Your task to perform on an android device: open app "Walmart Shopping & Grocery" (install if not already installed) and go to login screen Image 0: 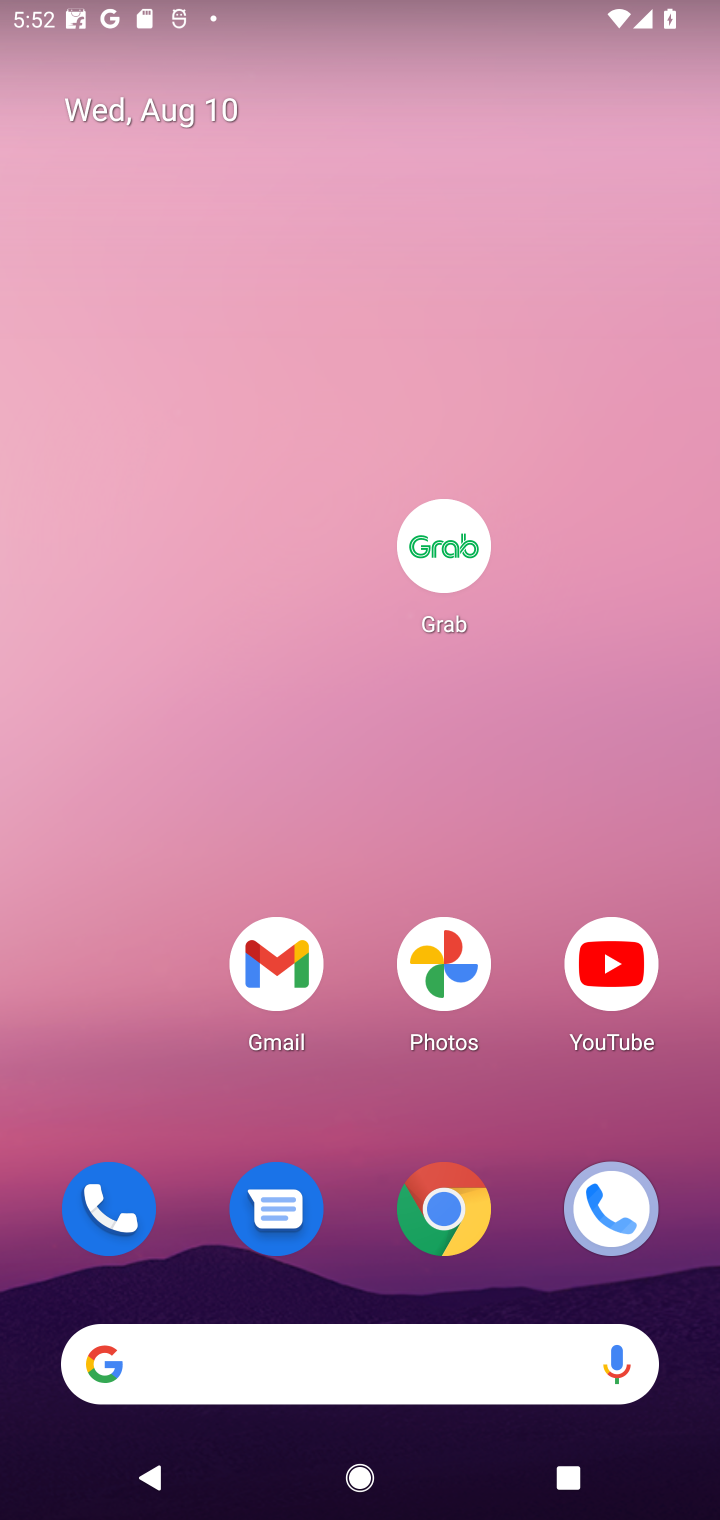
Step 0: drag from (522, 1246) to (480, 6)
Your task to perform on an android device: open app "Walmart Shopping & Grocery" (install if not already installed) and go to login screen Image 1: 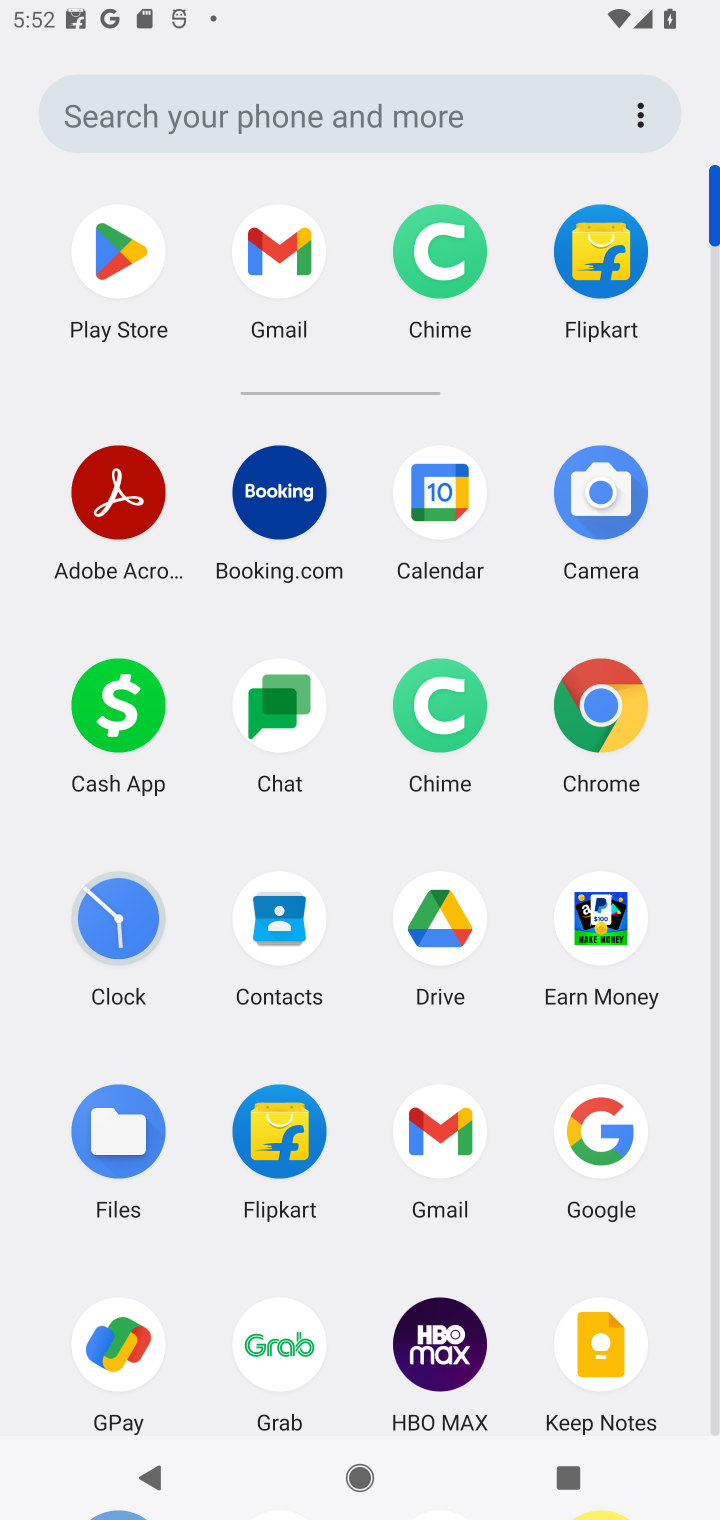
Step 1: click (84, 245)
Your task to perform on an android device: open app "Walmart Shopping & Grocery" (install if not already installed) and go to login screen Image 2: 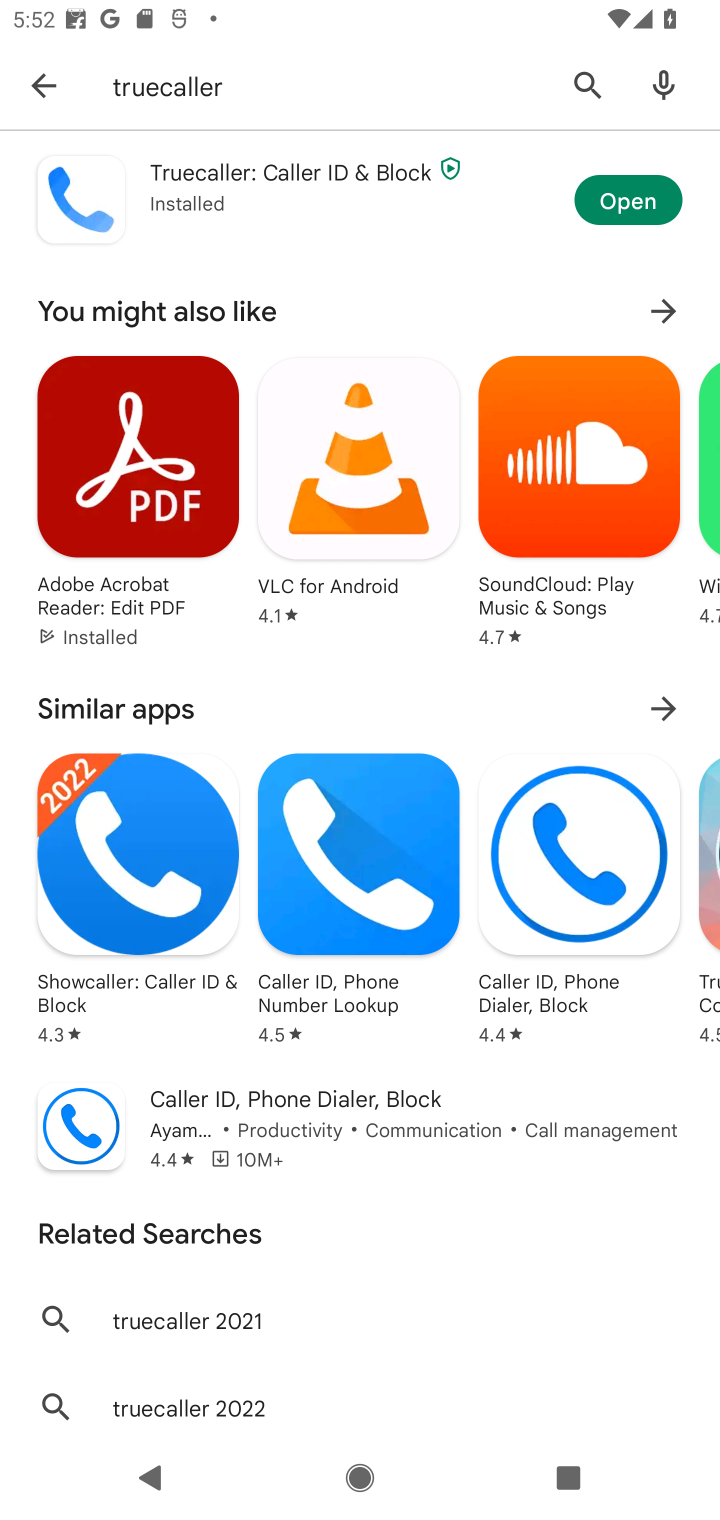
Step 2: click (606, 78)
Your task to perform on an android device: open app "Walmart Shopping & Grocery" (install if not already installed) and go to login screen Image 3: 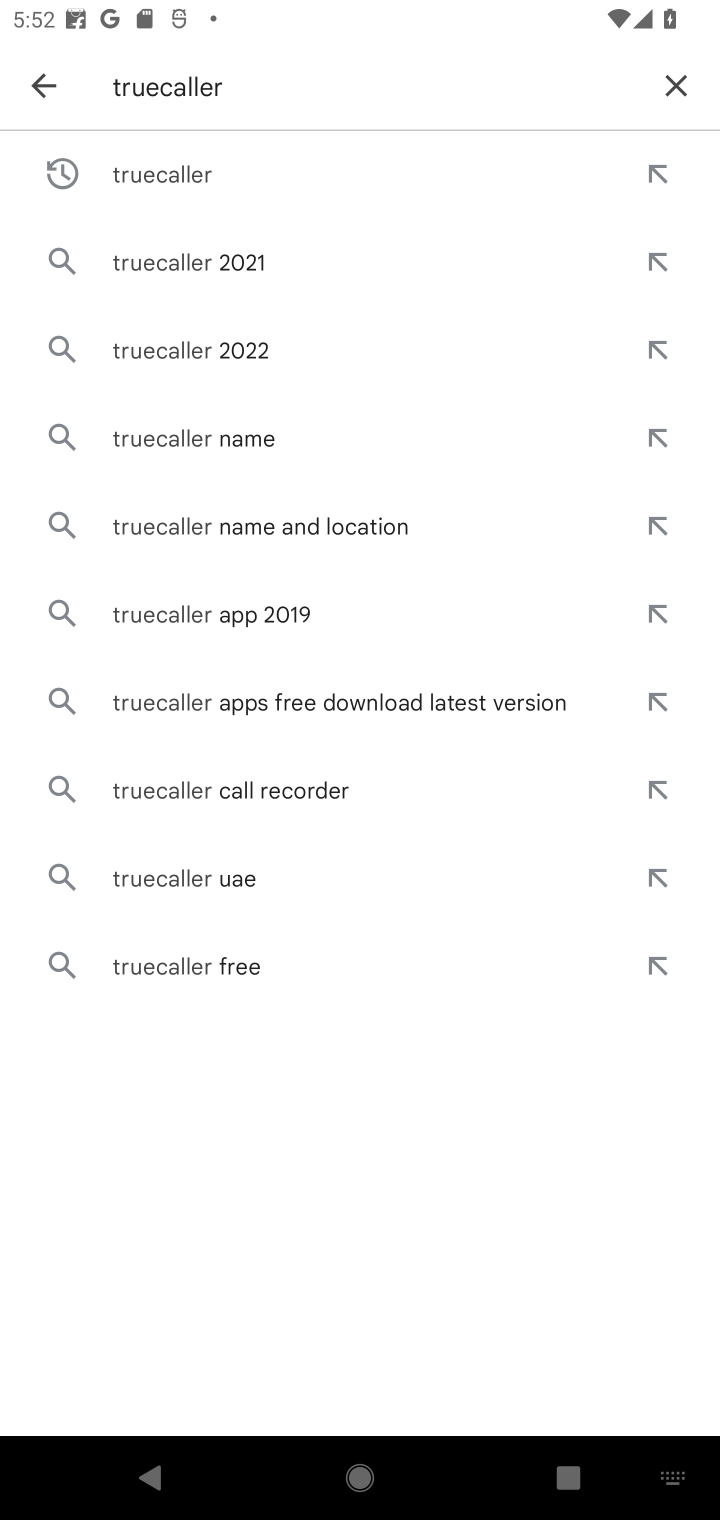
Step 3: click (632, 78)
Your task to perform on an android device: open app "Walmart Shopping & Grocery" (install if not already installed) and go to login screen Image 4: 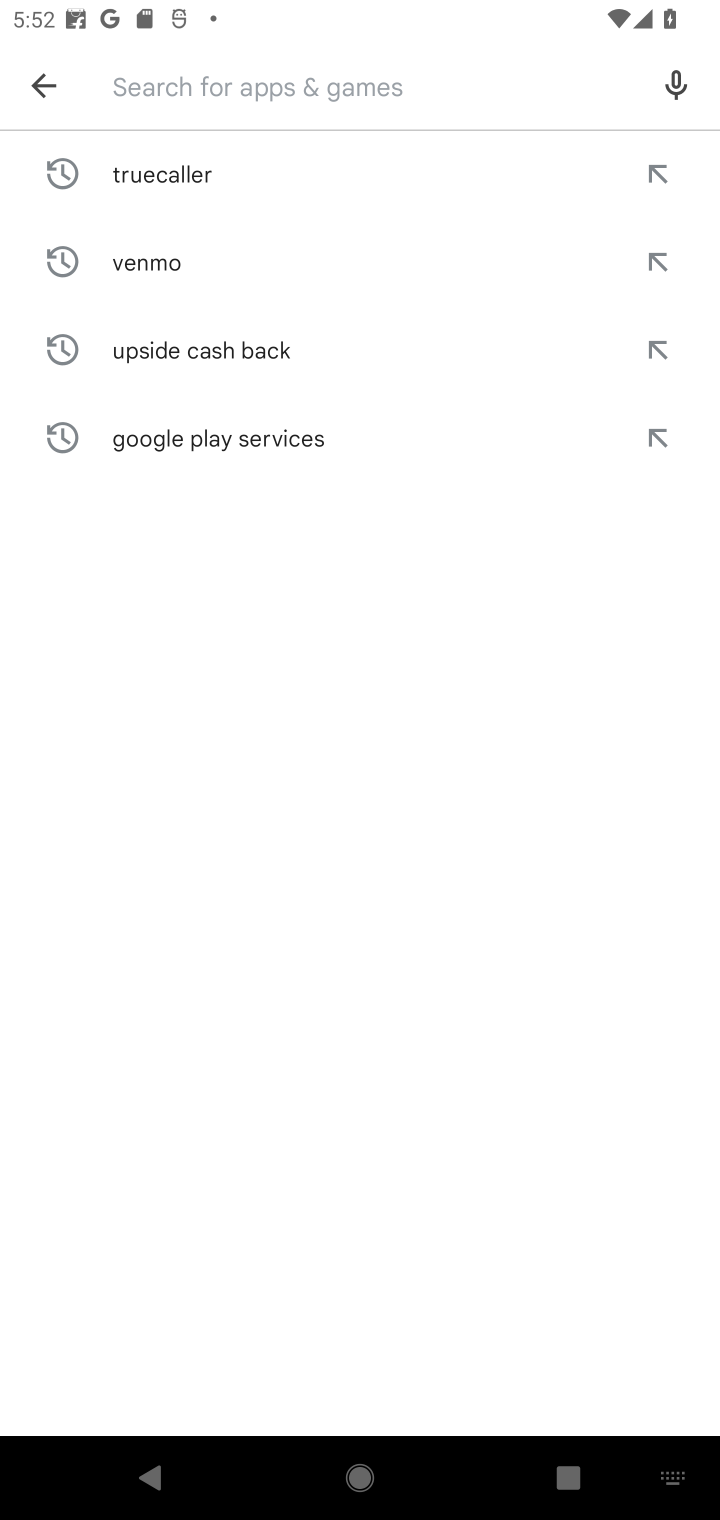
Step 4: type "walmart"
Your task to perform on an android device: open app "Walmart Shopping & Grocery" (install if not already installed) and go to login screen Image 5: 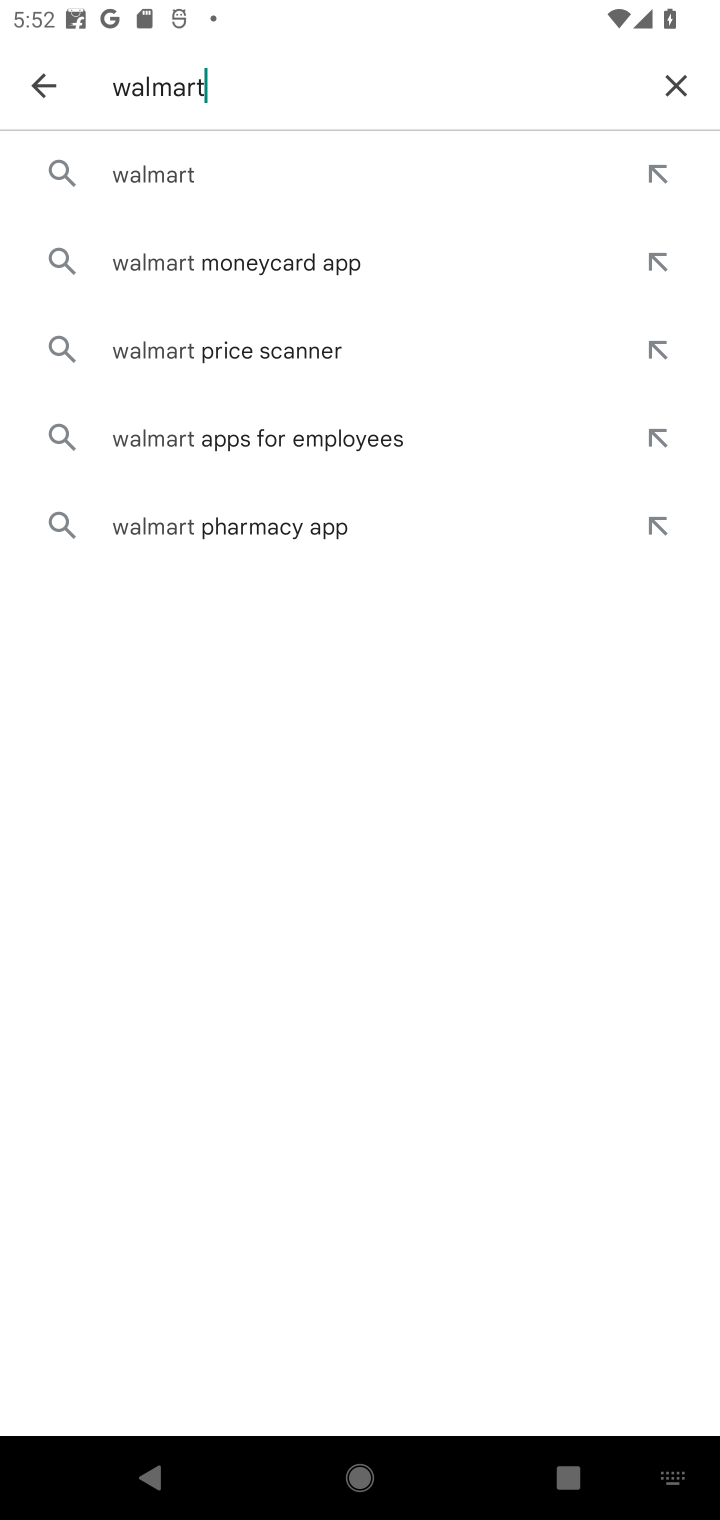
Step 5: click (266, 187)
Your task to perform on an android device: open app "Walmart Shopping & Grocery" (install if not already installed) and go to login screen Image 6: 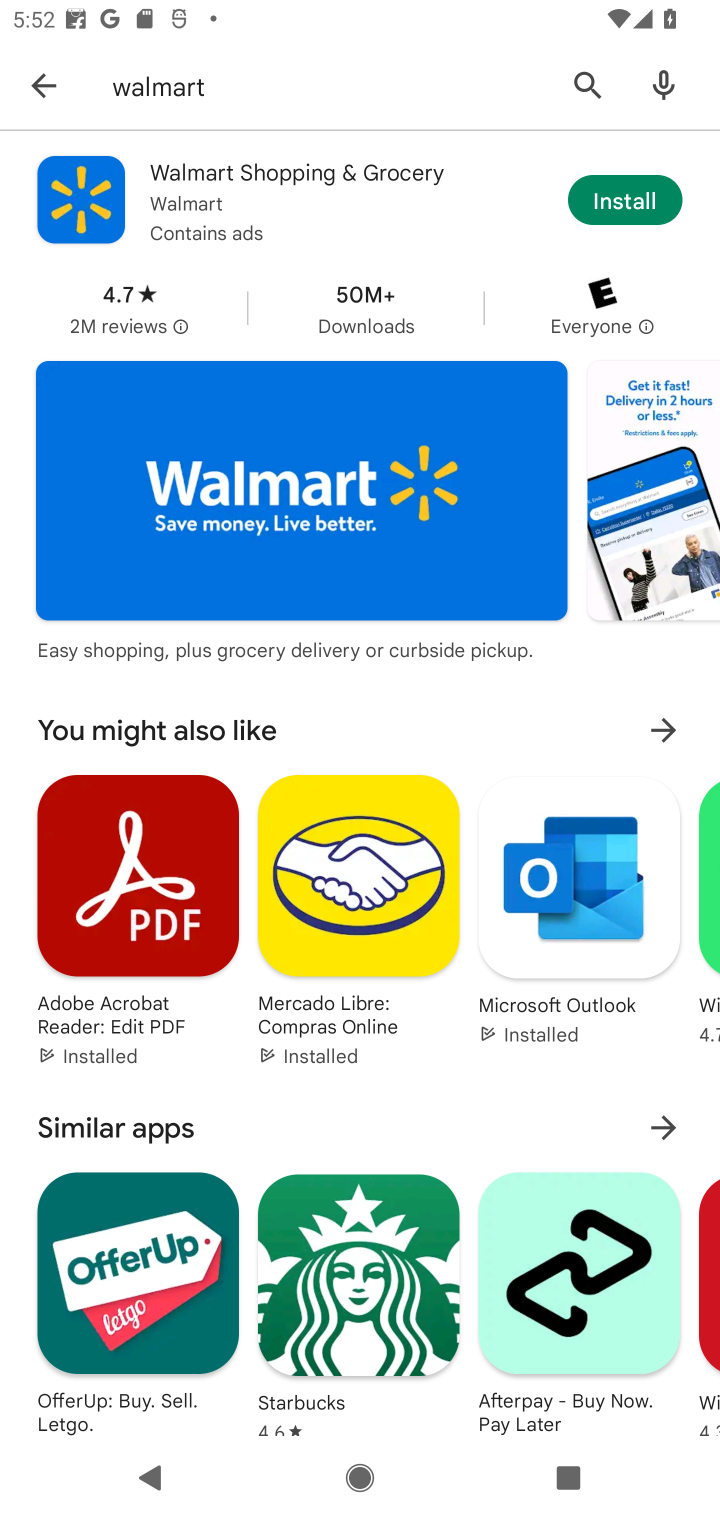
Step 6: click (614, 204)
Your task to perform on an android device: open app "Walmart Shopping & Grocery" (install if not already installed) and go to login screen Image 7: 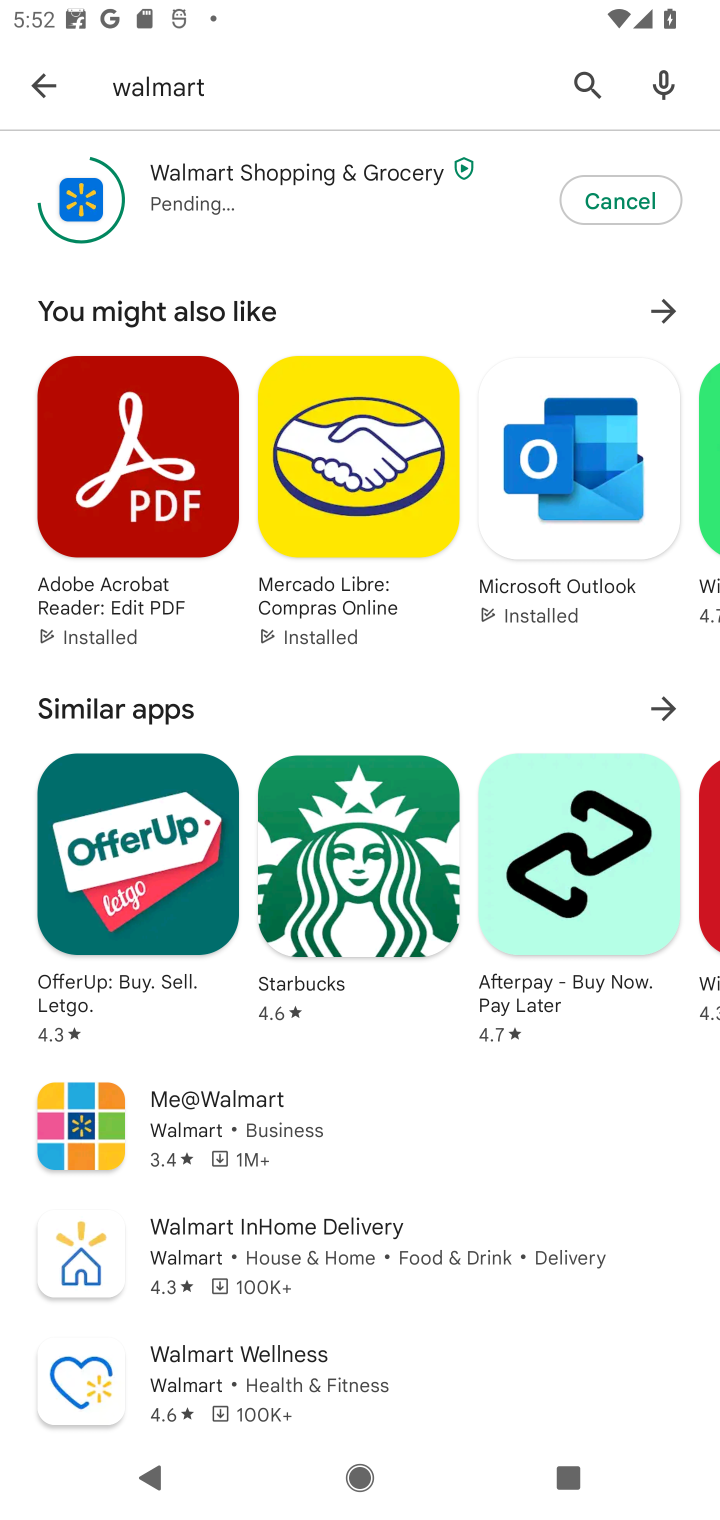
Step 7: task complete